Your task to perform on an android device: turn off improve location accuracy Image 0: 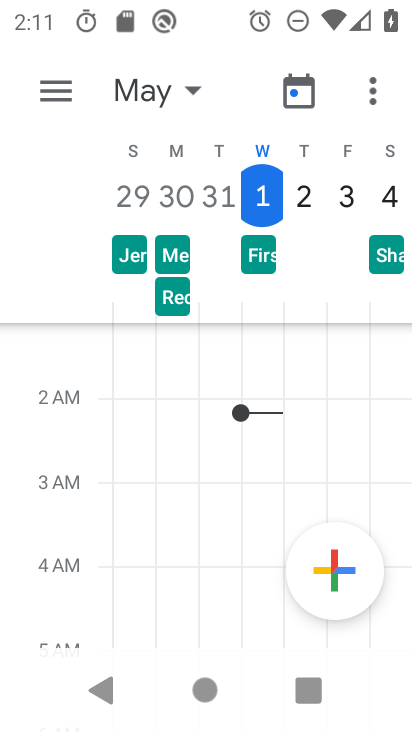
Step 0: press home button
Your task to perform on an android device: turn off improve location accuracy Image 1: 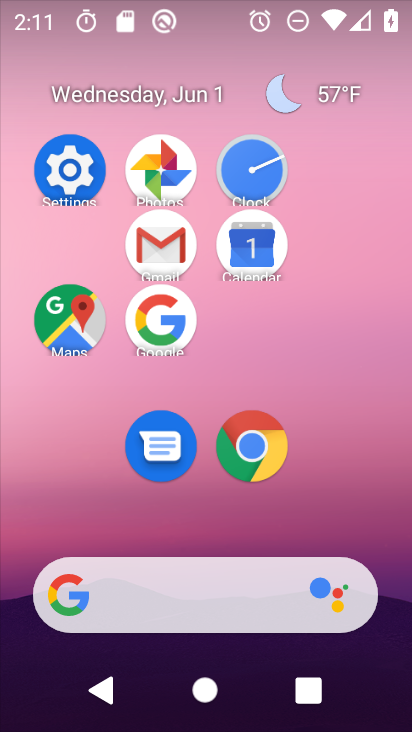
Step 1: click (100, 161)
Your task to perform on an android device: turn off improve location accuracy Image 2: 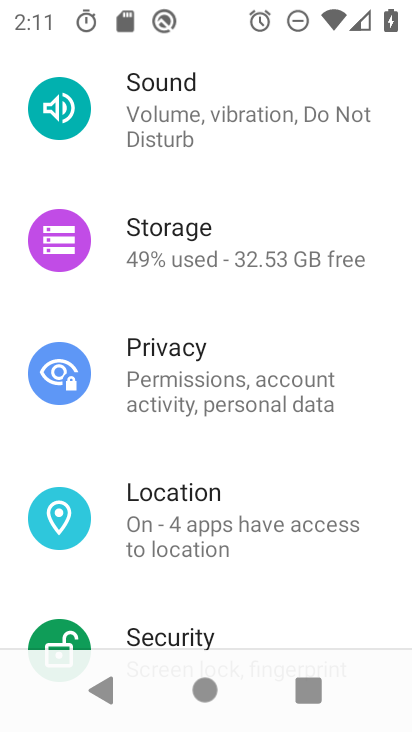
Step 2: drag from (266, 542) to (273, 139)
Your task to perform on an android device: turn off improve location accuracy Image 3: 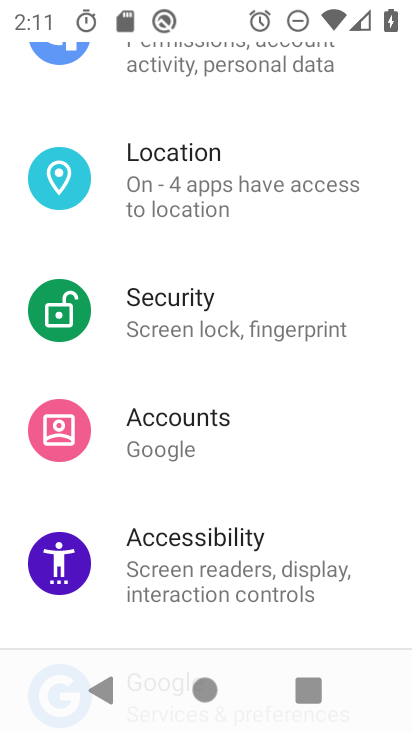
Step 3: drag from (268, 457) to (232, 119)
Your task to perform on an android device: turn off improve location accuracy Image 4: 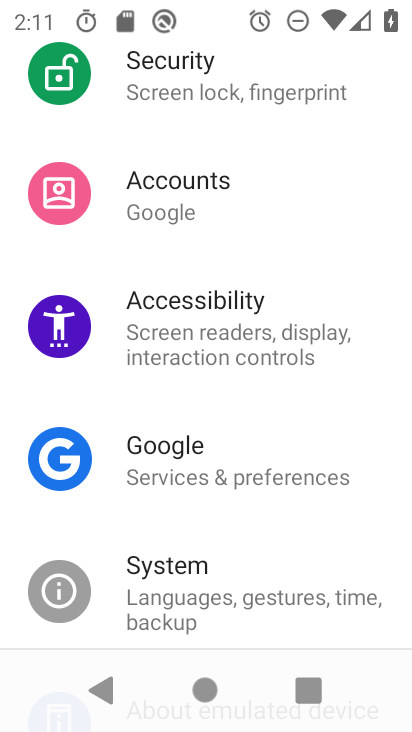
Step 4: drag from (308, 252) to (347, 685)
Your task to perform on an android device: turn off improve location accuracy Image 5: 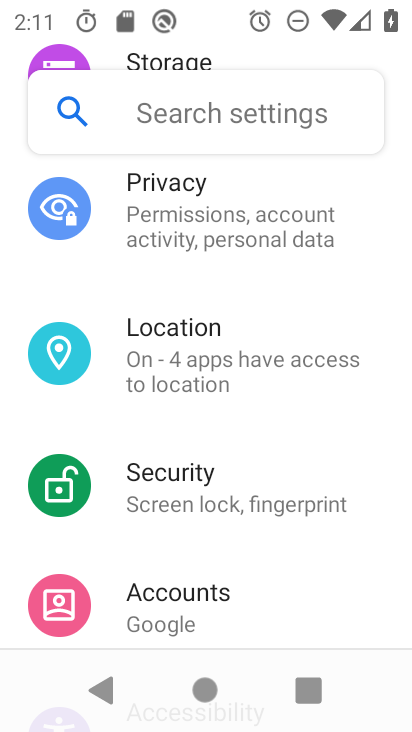
Step 5: click (244, 337)
Your task to perform on an android device: turn off improve location accuracy Image 6: 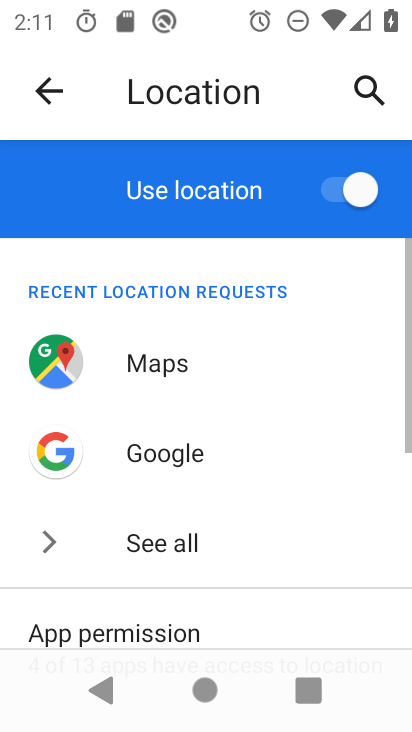
Step 6: drag from (265, 513) to (276, 150)
Your task to perform on an android device: turn off improve location accuracy Image 7: 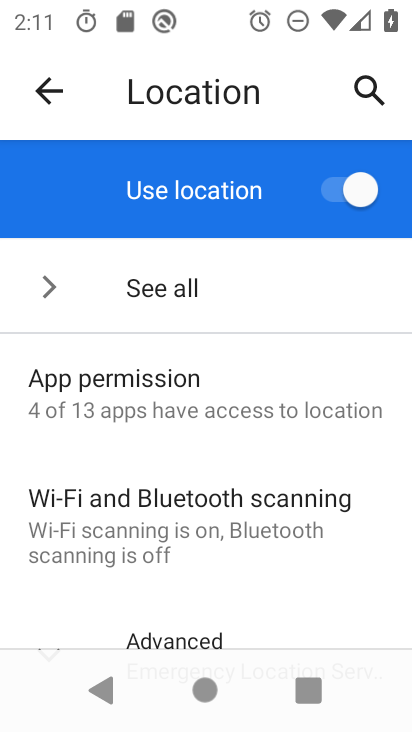
Step 7: drag from (278, 486) to (282, 77)
Your task to perform on an android device: turn off improve location accuracy Image 8: 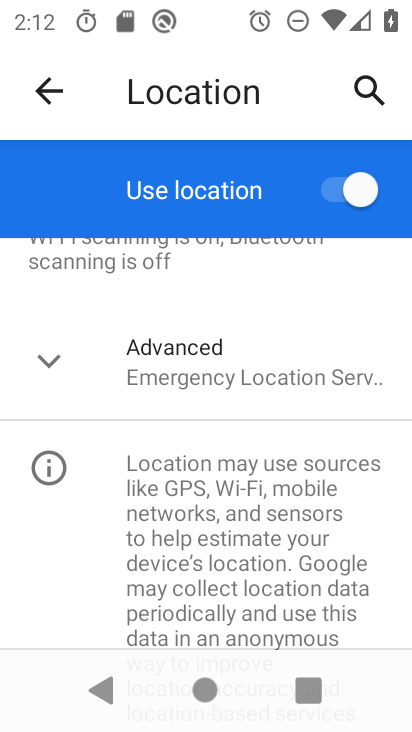
Step 8: click (247, 339)
Your task to perform on an android device: turn off improve location accuracy Image 9: 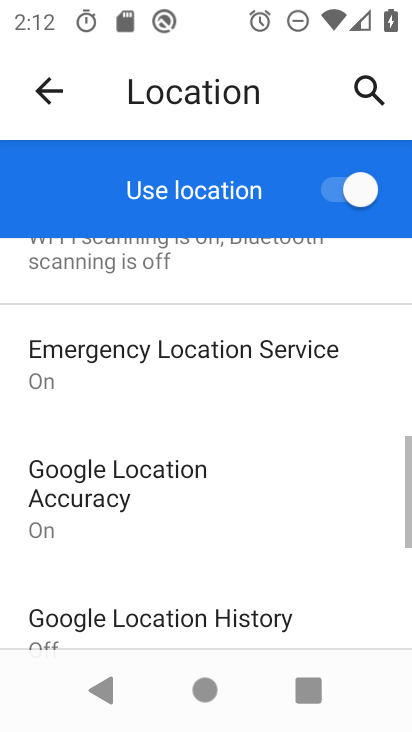
Step 9: drag from (231, 562) to (207, 179)
Your task to perform on an android device: turn off improve location accuracy Image 10: 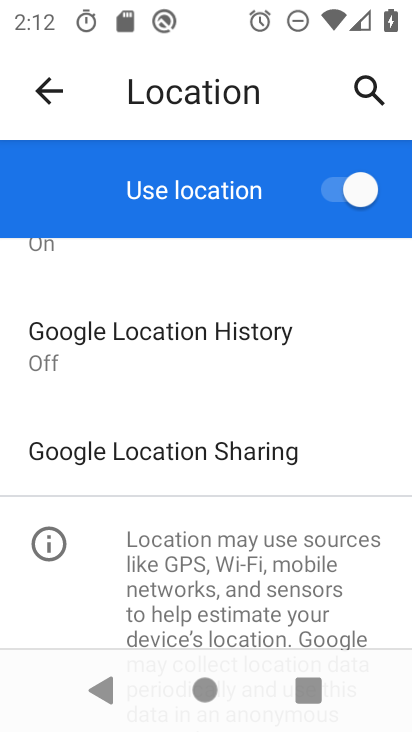
Step 10: drag from (252, 331) to (254, 686)
Your task to perform on an android device: turn off improve location accuracy Image 11: 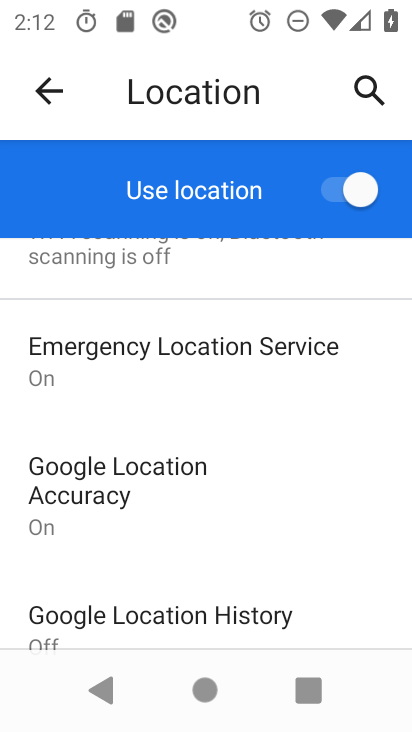
Step 11: click (176, 480)
Your task to perform on an android device: turn off improve location accuracy Image 12: 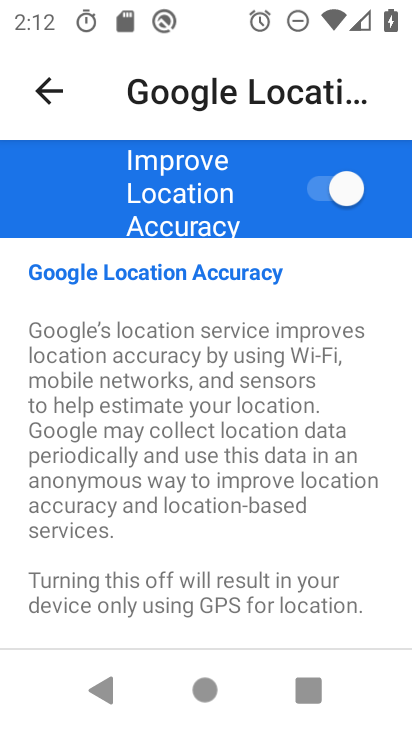
Step 12: click (336, 190)
Your task to perform on an android device: turn off improve location accuracy Image 13: 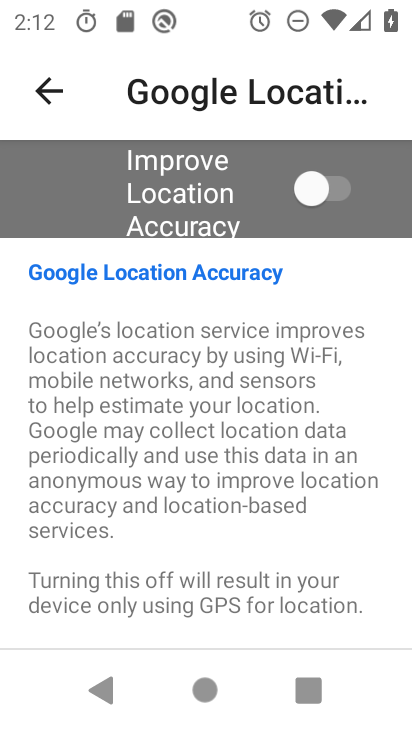
Step 13: task complete